Your task to perform on an android device: Search for pizza restaurants on Maps Image 0: 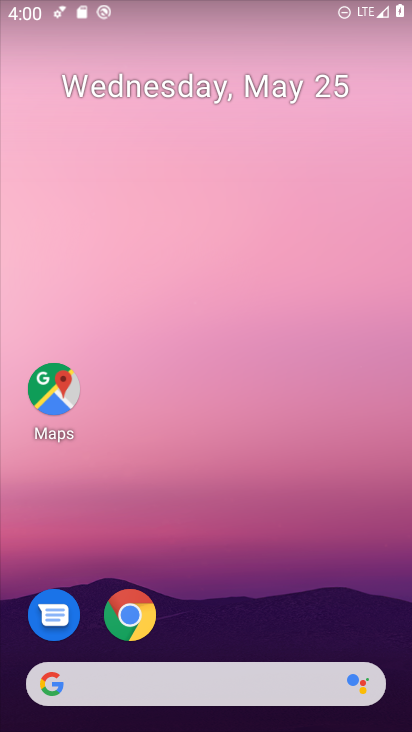
Step 0: click (56, 389)
Your task to perform on an android device: Search for pizza restaurants on Maps Image 1: 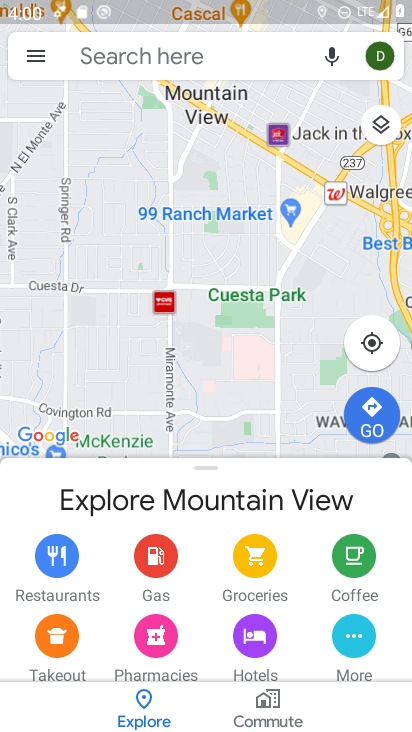
Step 1: click (206, 53)
Your task to perform on an android device: Search for pizza restaurants on Maps Image 2: 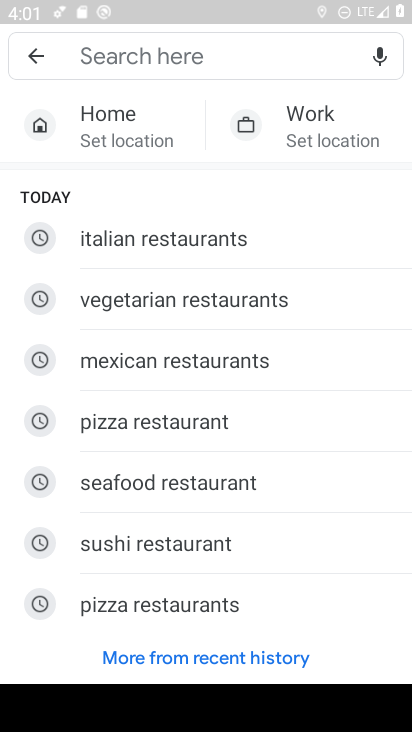
Step 2: click (136, 425)
Your task to perform on an android device: Search for pizza restaurants on Maps Image 3: 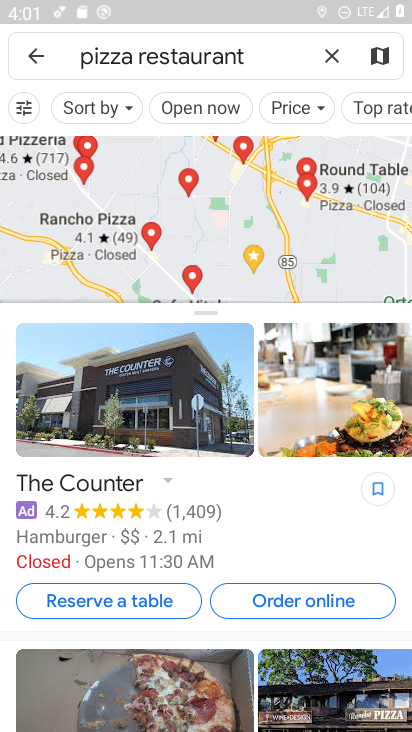
Step 3: task complete